Your task to perform on an android device: change notification settings in the gmail app Image 0: 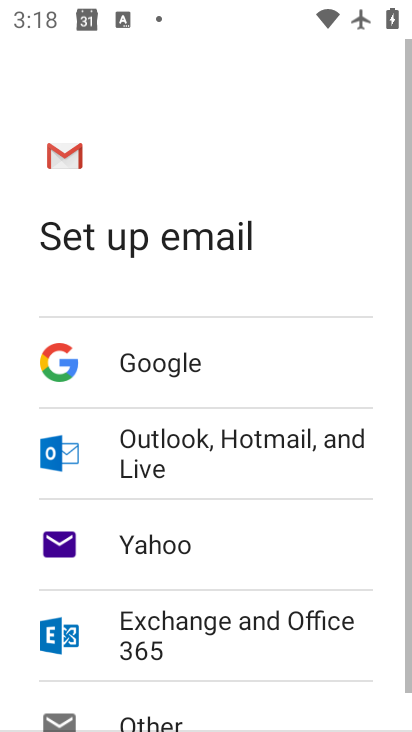
Step 0: press home button
Your task to perform on an android device: change notification settings in the gmail app Image 1: 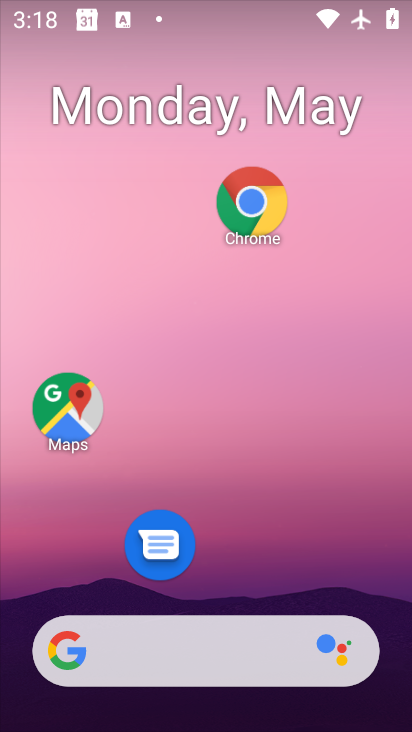
Step 1: drag from (204, 578) to (244, 272)
Your task to perform on an android device: change notification settings in the gmail app Image 2: 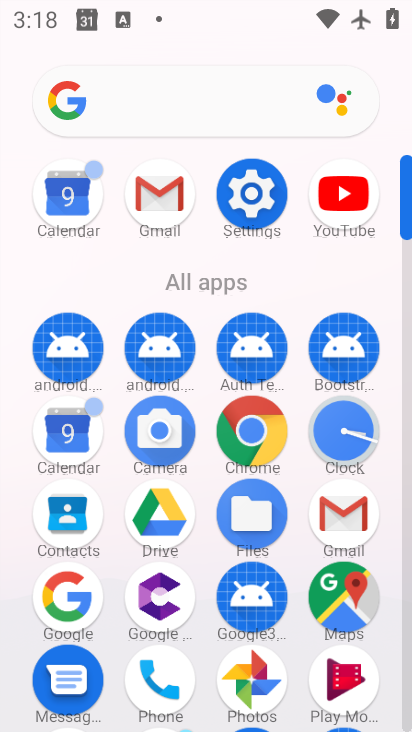
Step 2: click (132, 214)
Your task to perform on an android device: change notification settings in the gmail app Image 3: 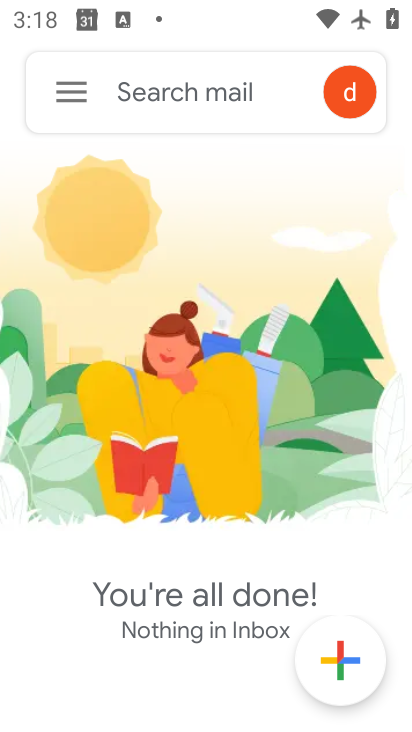
Step 3: click (73, 102)
Your task to perform on an android device: change notification settings in the gmail app Image 4: 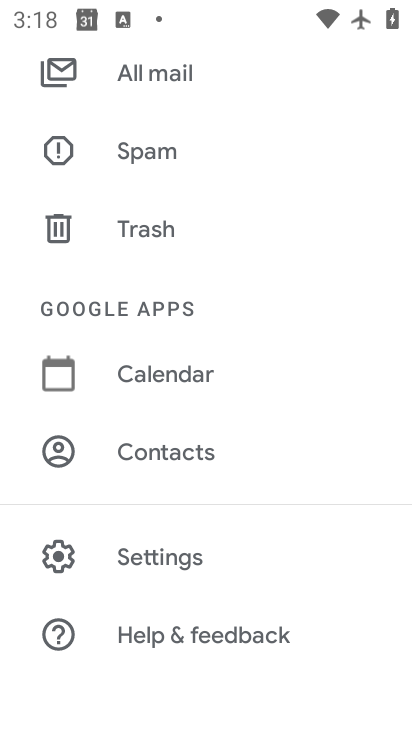
Step 4: click (158, 552)
Your task to perform on an android device: change notification settings in the gmail app Image 5: 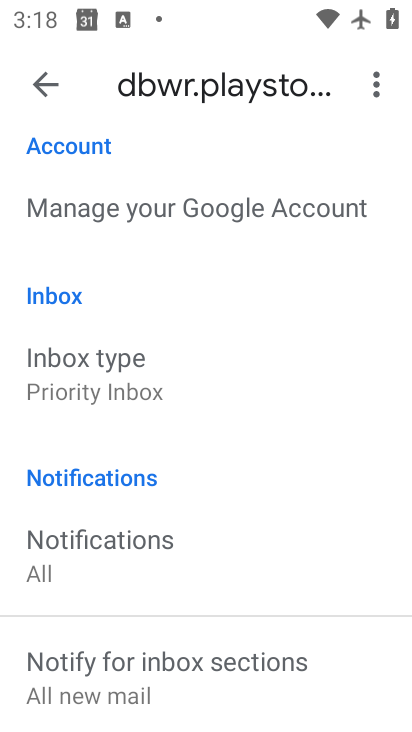
Step 5: drag from (191, 616) to (243, 329)
Your task to perform on an android device: change notification settings in the gmail app Image 6: 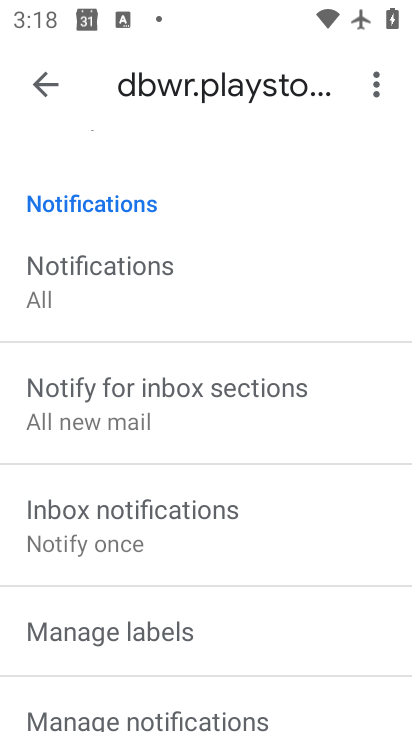
Step 6: drag from (193, 620) to (212, 439)
Your task to perform on an android device: change notification settings in the gmail app Image 7: 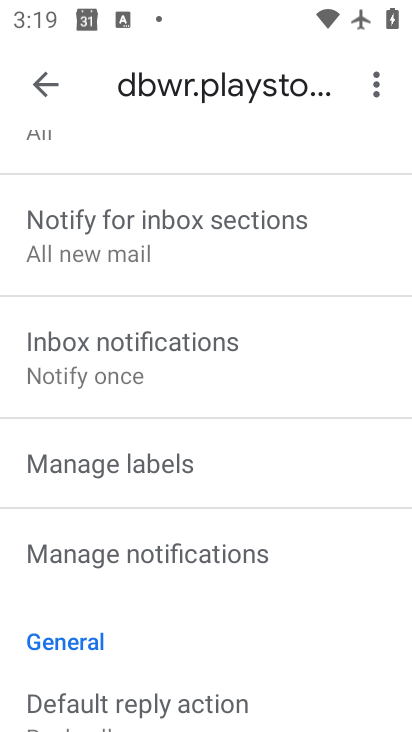
Step 7: click (173, 561)
Your task to perform on an android device: change notification settings in the gmail app Image 8: 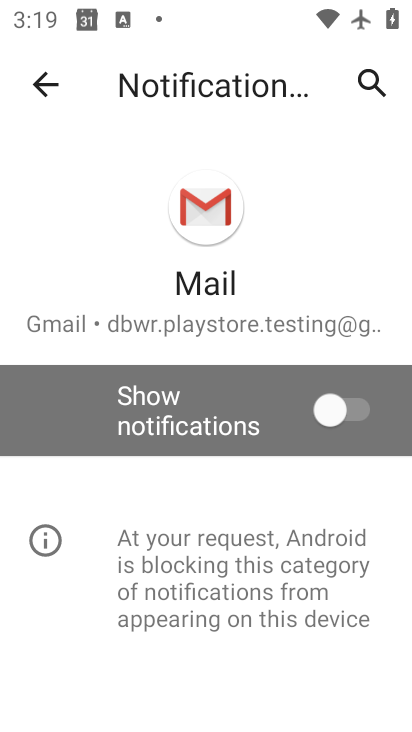
Step 8: click (353, 416)
Your task to perform on an android device: change notification settings in the gmail app Image 9: 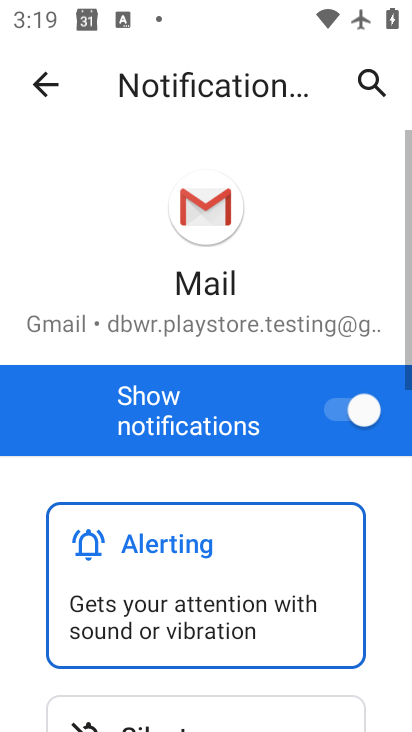
Step 9: task complete